Your task to perform on an android device: Open Google Chrome and open the bookmarks view Image 0: 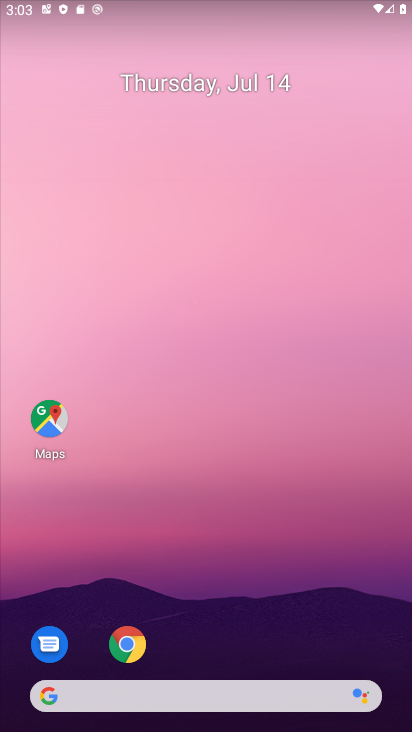
Step 0: drag from (184, 616) to (279, 224)
Your task to perform on an android device: Open Google Chrome and open the bookmarks view Image 1: 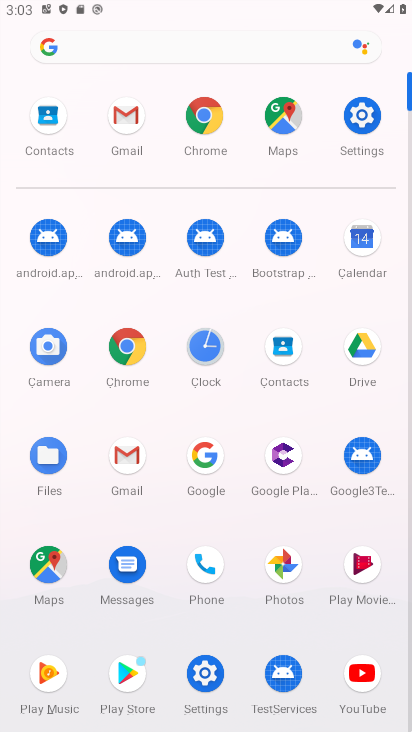
Step 1: click (123, 325)
Your task to perform on an android device: Open Google Chrome and open the bookmarks view Image 2: 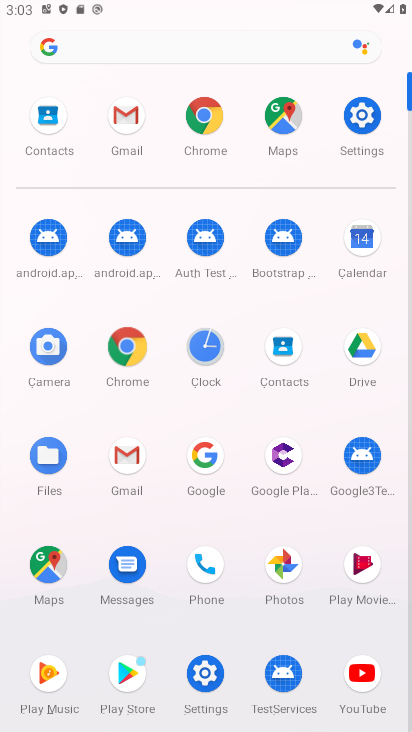
Step 2: click (123, 325)
Your task to perform on an android device: Open Google Chrome and open the bookmarks view Image 3: 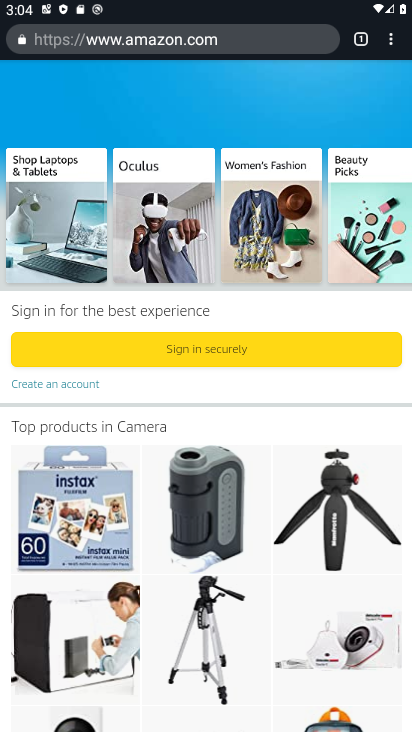
Step 3: task complete